Your task to perform on an android device: Go to CNN.com Image 0: 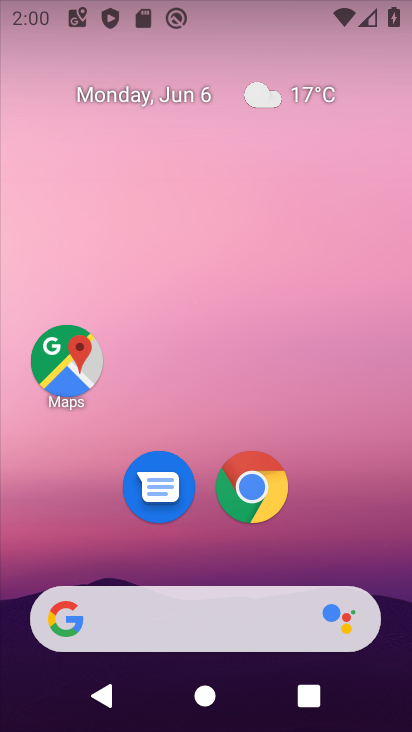
Step 0: click (200, 631)
Your task to perform on an android device: Go to CNN.com Image 1: 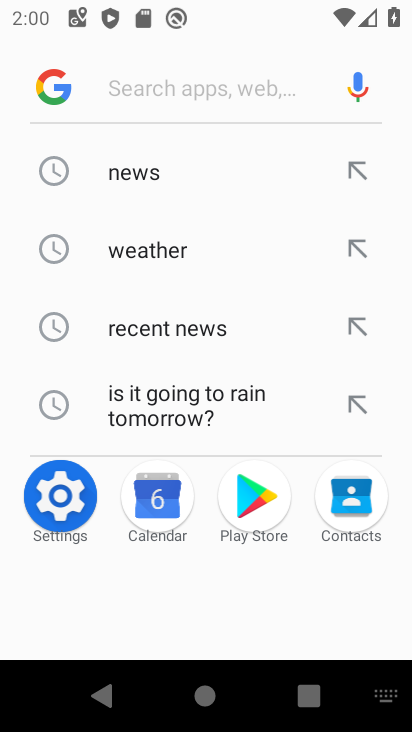
Step 1: type "CNN.com"
Your task to perform on an android device: Go to CNN.com Image 2: 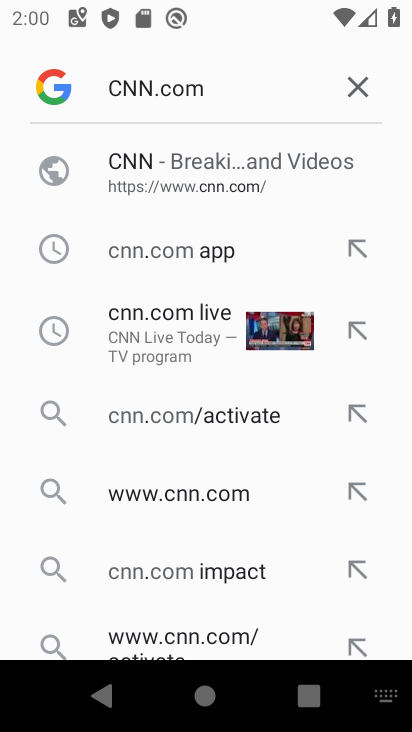
Step 2: click (243, 205)
Your task to perform on an android device: Go to CNN.com Image 3: 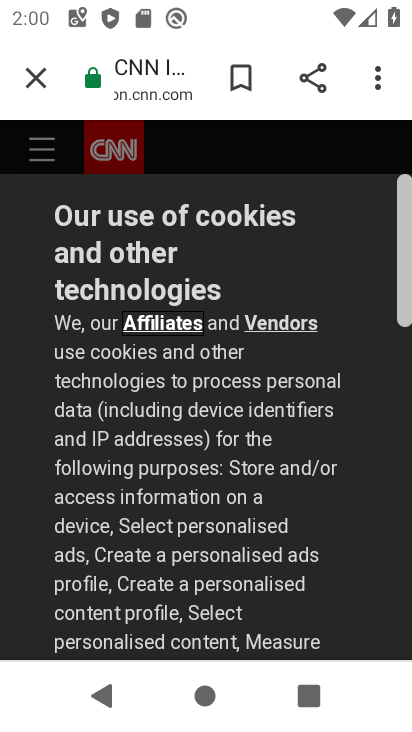
Step 3: drag from (128, 568) to (273, 199)
Your task to perform on an android device: Go to CNN.com Image 4: 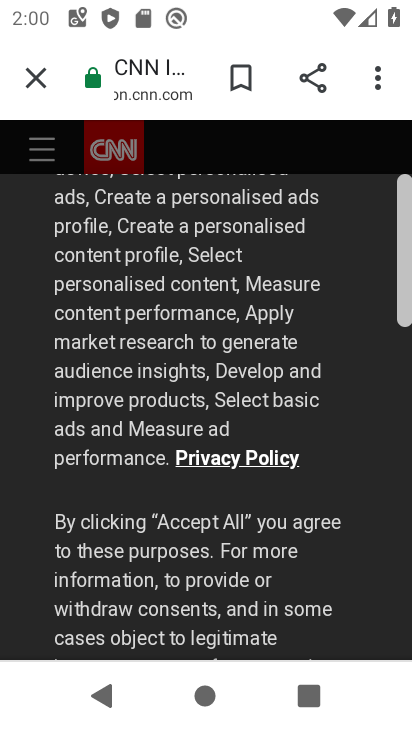
Step 4: drag from (213, 636) to (343, 144)
Your task to perform on an android device: Go to CNN.com Image 5: 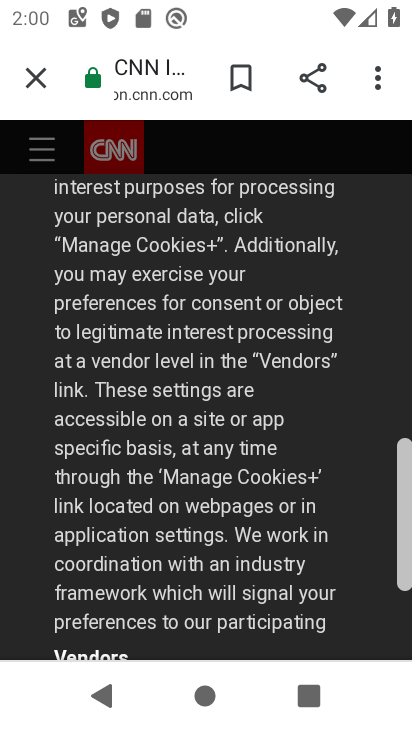
Step 5: drag from (211, 579) to (315, 193)
Your task to perform on an android device: Go to CNN.com Image 6: 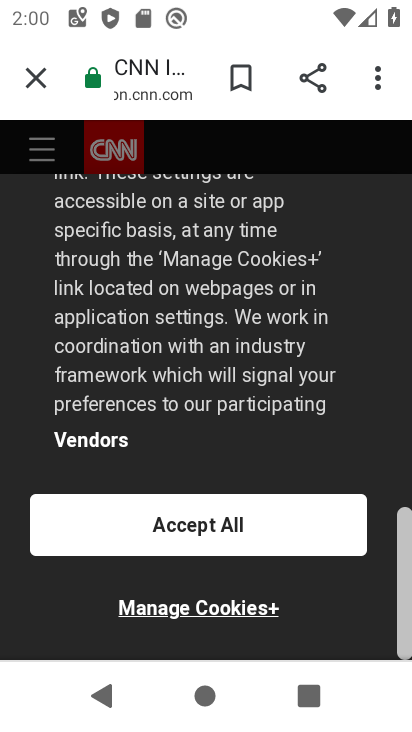
Step 6: click (210, 535)
Your task to perform on an android device: Go to CNN.com Image 7: 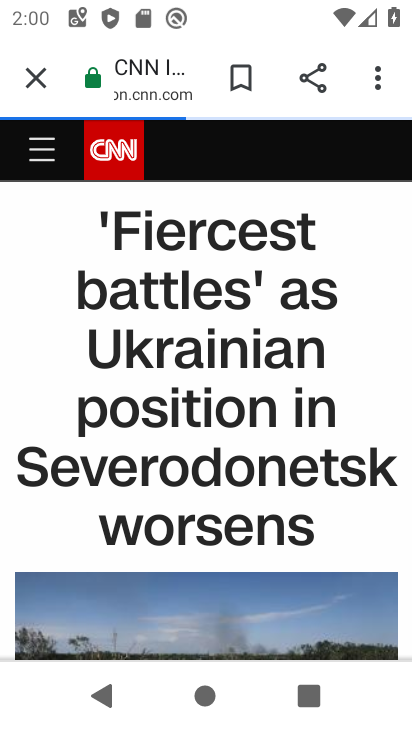
Step 7: task complete